Your task to perform on an android device: turn vacation reply on in the gmail app Image 0: 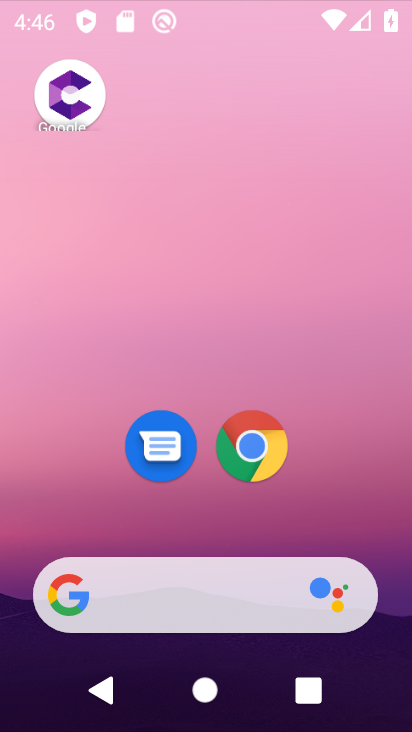
Step 0: click (215, 28)
Your task to perform on an android device: turn vacation reply on in the gmail app Image 1: 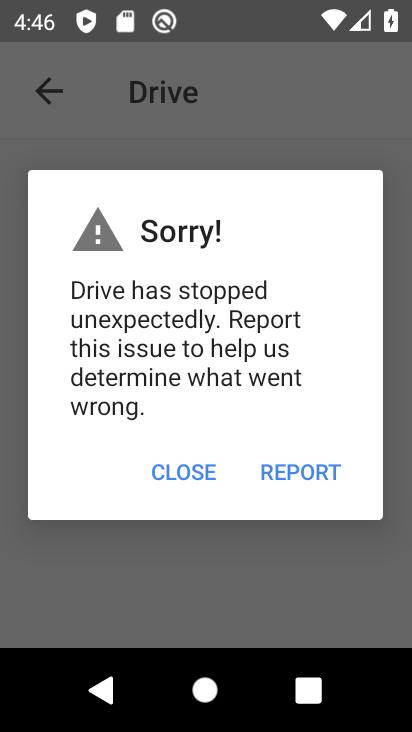
Step 1: press home button
Your task to perform on an android device: turn vacation reply on in the gmail app Image 2: 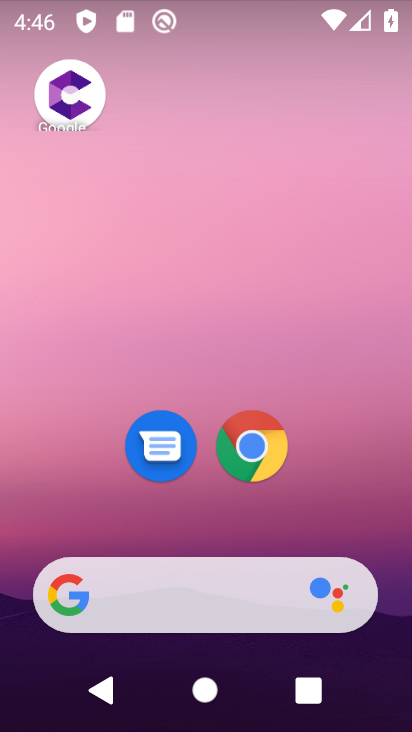
Step 2: drag from (345, 459) to (262, 91)
Your task to perform on an android device: turn vacation reply on in the gmail app Image 3: 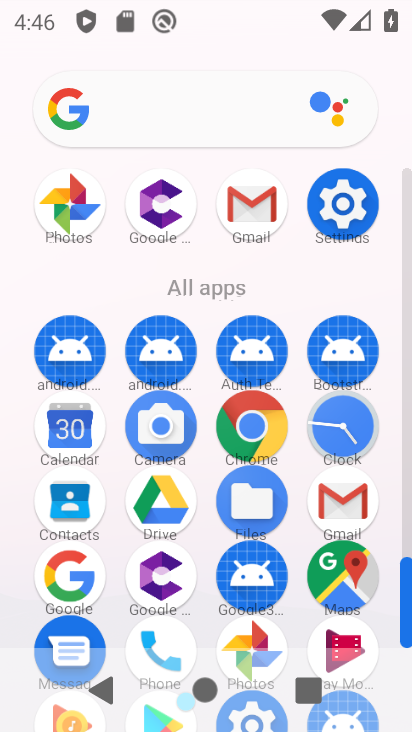
Step 3: click (249, 207)
Your task to perform on an android device: turn vacation reply on in the gmail app Image 4: 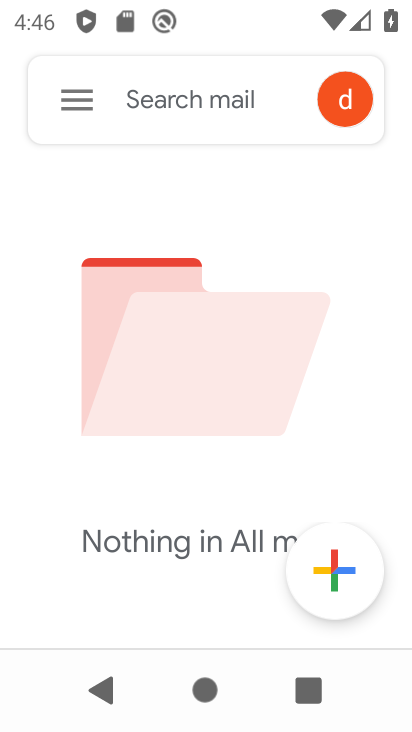
Step 4: click (82, 89)
Your task to perform on an android device: turn vacation reply on in the gmail app Image 5: 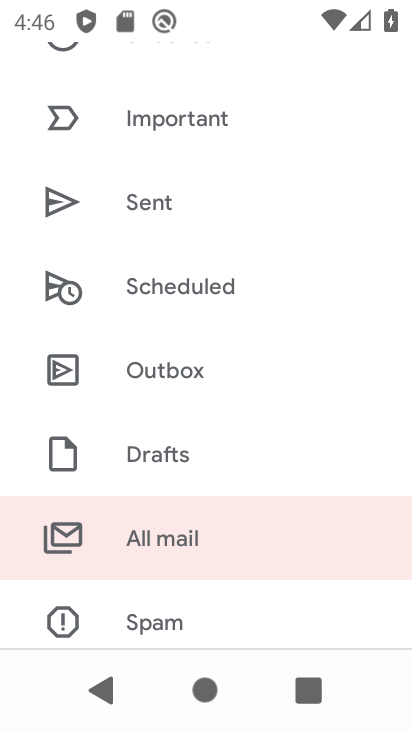
Step 5: drag from (227, 451) to (220, 83)
Your task to perform on an android device: turn vacation reply on in the gmail app Image 6: 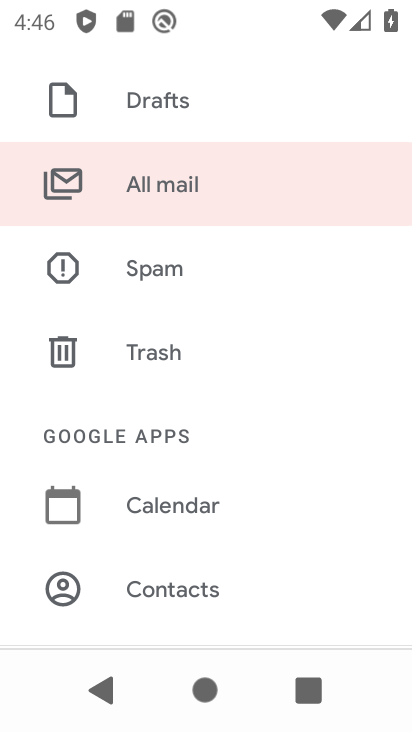
Step 6: drag from (250, 520) to (257, 86)
Your task to perform on an android device: turn vacation reply on in the gmail app Image 7: 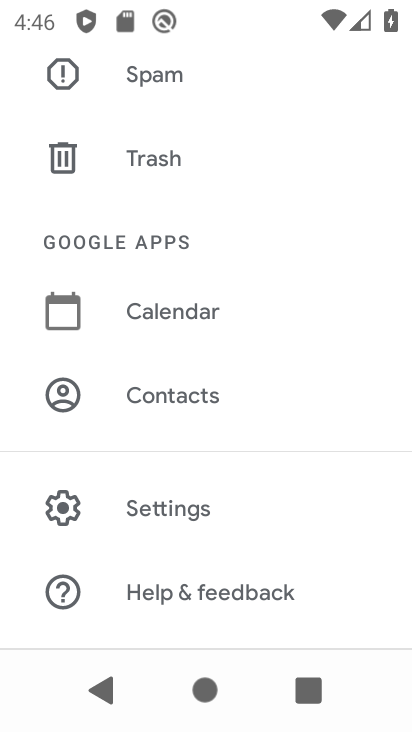
Step 7: click (127, 494)
Your task to perform on an android device: turn vacation reply on in the gmail app Image 8: 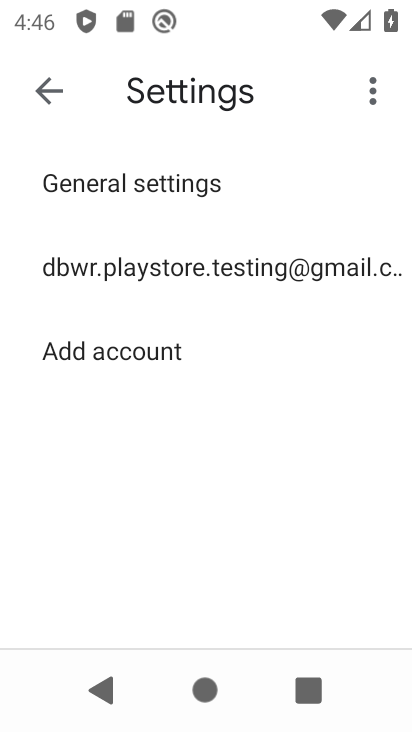
Step 8: click (140, 262)
Your task to perform on an android device: turn vacation reply on in the gmail app Image 9: 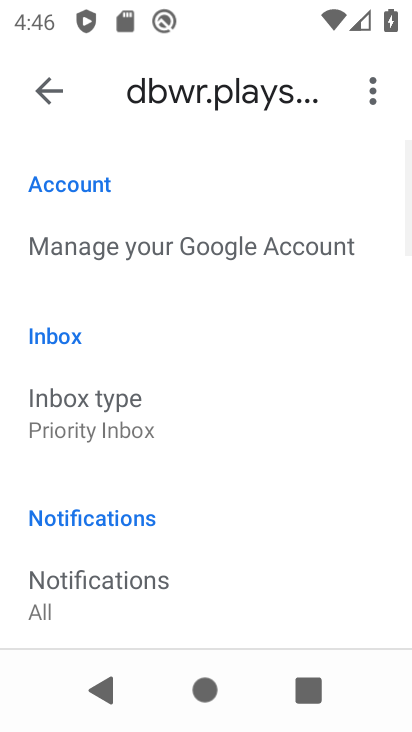
Step 9: drag from (248, 546) to (216, 185)
Your task to perform on an android device: turn vacation reply on in the gmail app Image 10: 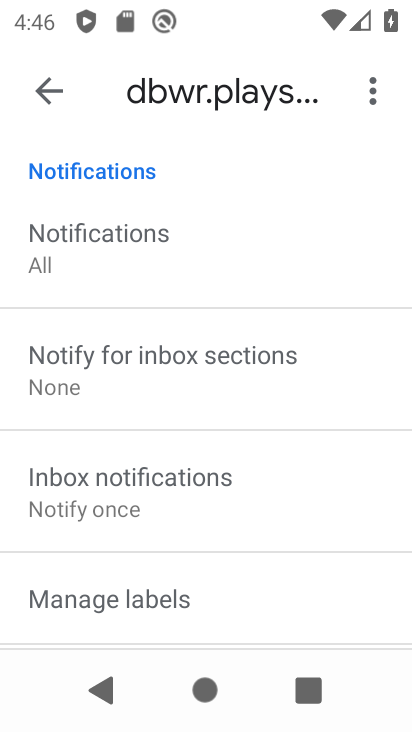
Step 10: drag from (270, 414) to (270, 56)
Your task to perform on an android device: turn vacation reply on in the gmail app Image 11: 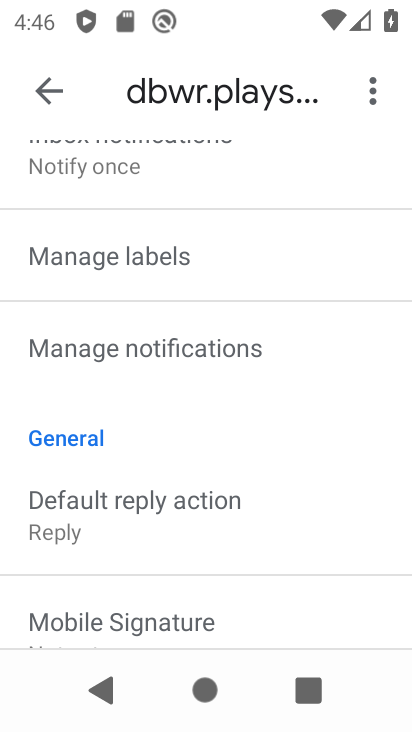
Step 11: drag from (273, 463) to (232, 143)
Your task to perform on an android device: turn vacation reply on in the gmail app Image 12: 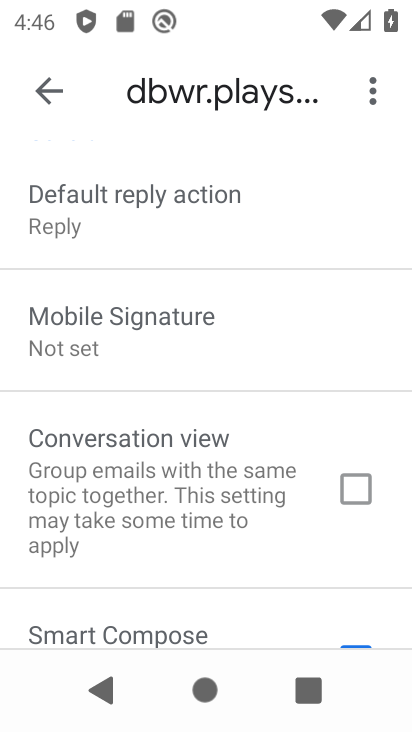
Step 12: drag from (276, 595) to (277, 243)
Your task to perform on an android device: turn vacation reply on in the gmail app Image 13: 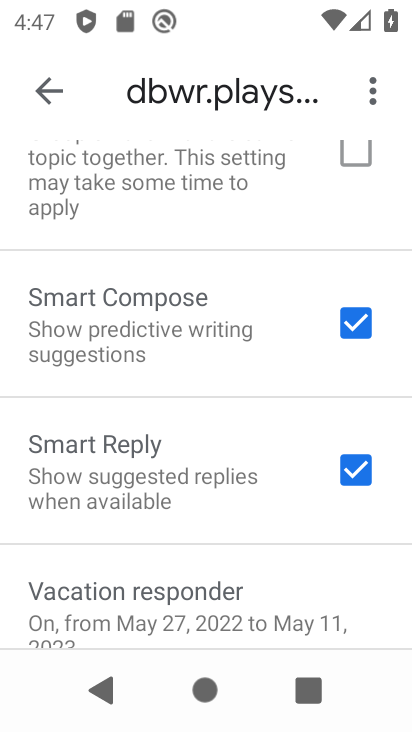
Step 13: drag from (244, 521) to (234, 339)
Your task to perform on an android device: turn vacation reply on in the gmail app Image 14: 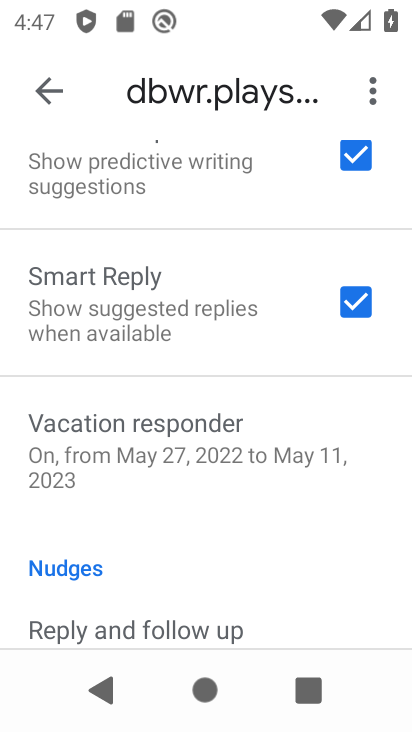
Step 14: click (147, 431)
Your task to perform on an android device: turn vacation reply on in the gmail app Image 15: 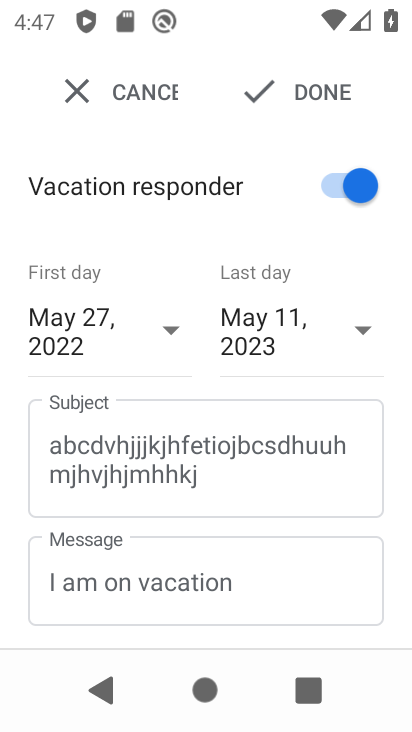
Step 15: task complete